Your task to perform on an android device: allow cookies in the chrome app Image 0: 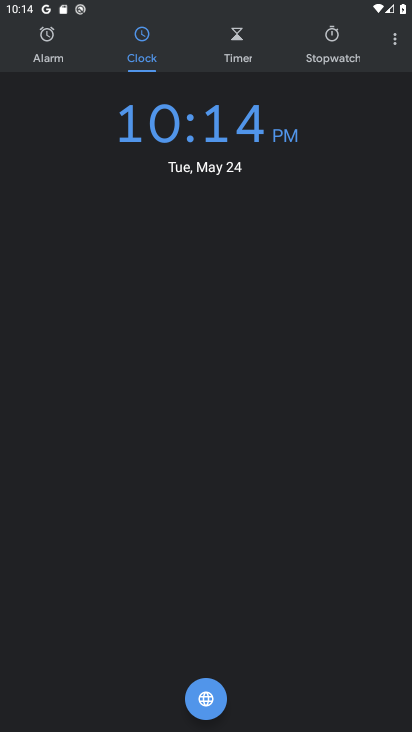
Step 0: click (395, 40)
Your task to perform on an android device: allow cookies in the chrome app Image 1: 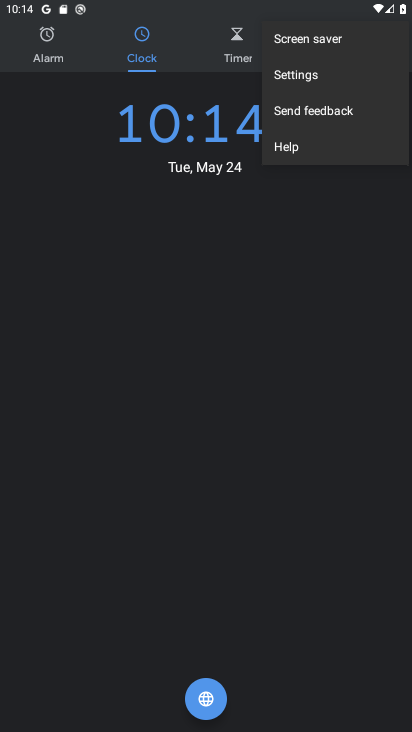
Step 1: press home button
Your task to perform on an android device: allow cookies in the chrome app Image 2: 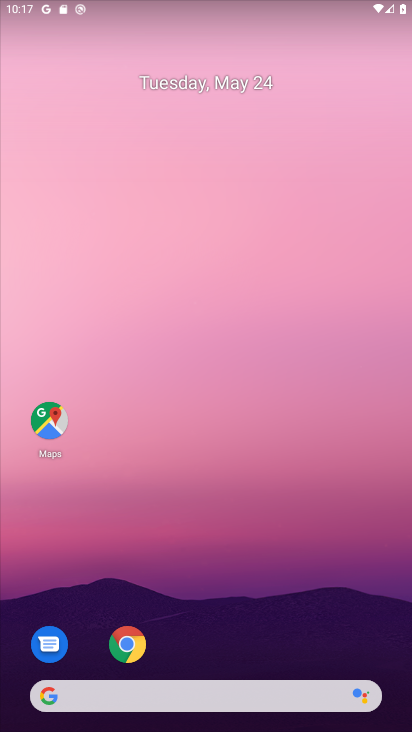
Step 2: drag from (192, 555) to (121, 89)
Your task to perform on an android device: allow cookies in the chrome app Image 3: 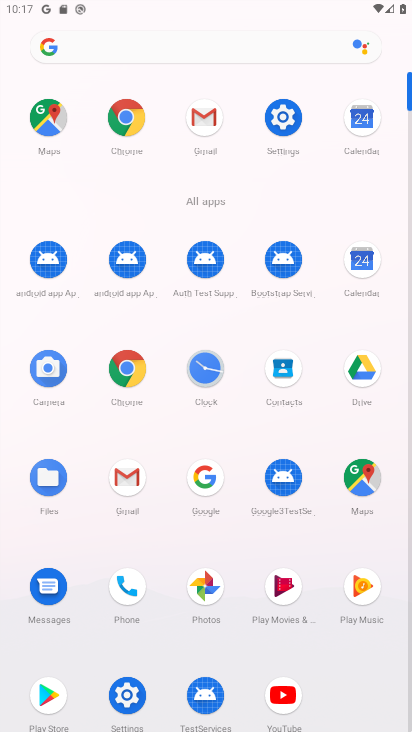
Step 3: click (122, 115)
Your task to perform on an android device: allow cookies in the chrome app Image 4: 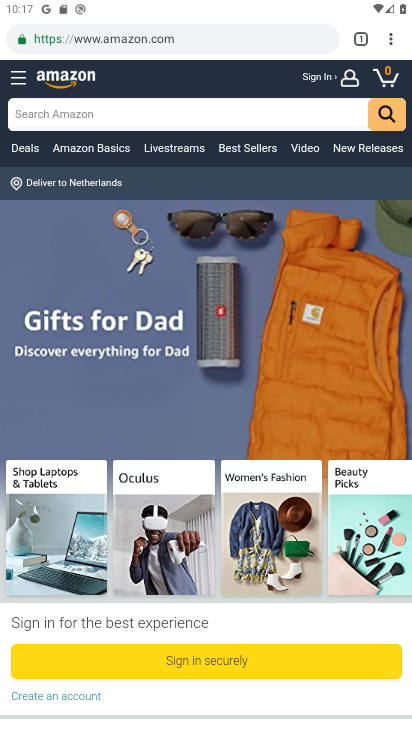
Step 4: click (386, 35)
Your task to perform on an android device: allow cookies in the chrome app Image 5: 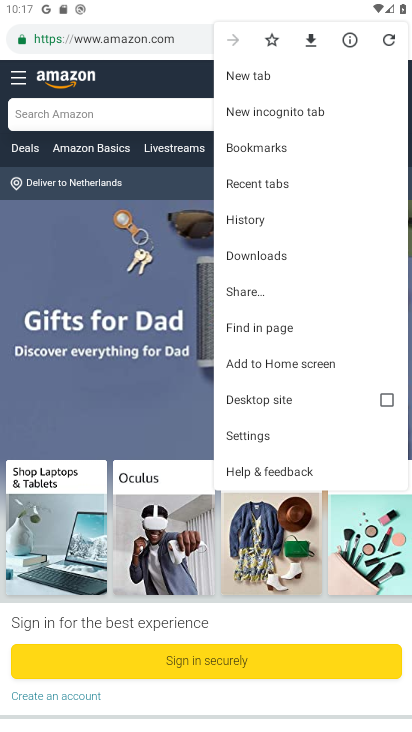
Step 5: click (254, 438)
Your task to perform on an android device: allow cookies in the chrome app Image 6: 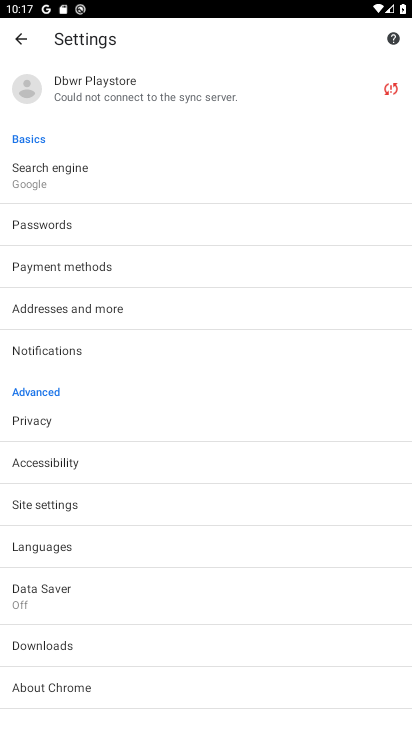
Step 6: click (39, 504)
Your task to perform on an android device: allow cookies in the chrome app Image 7: 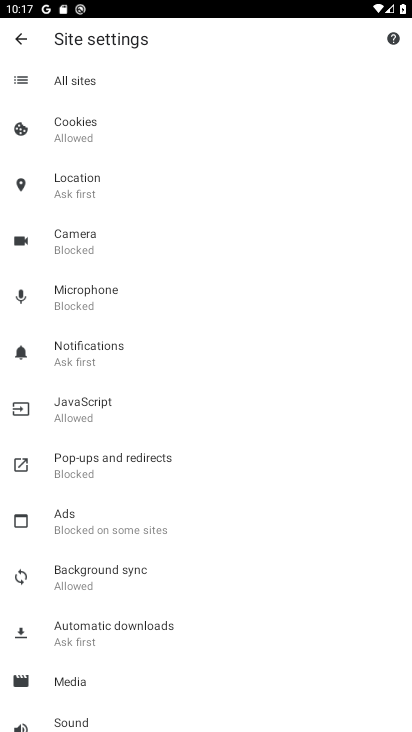
Step 7: click (73, 127)
Your task to perform on an android device: allow cookies in the chrome app Image 8: 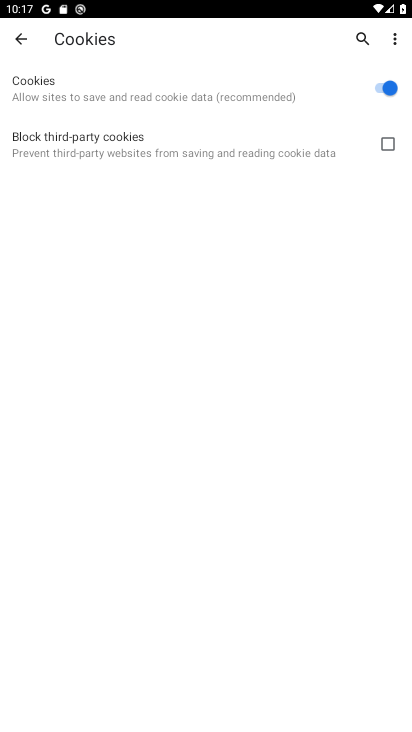
Step 8: task complete